Your task to perform on an android device: delete the emails in spam in the gmail app Image 0: 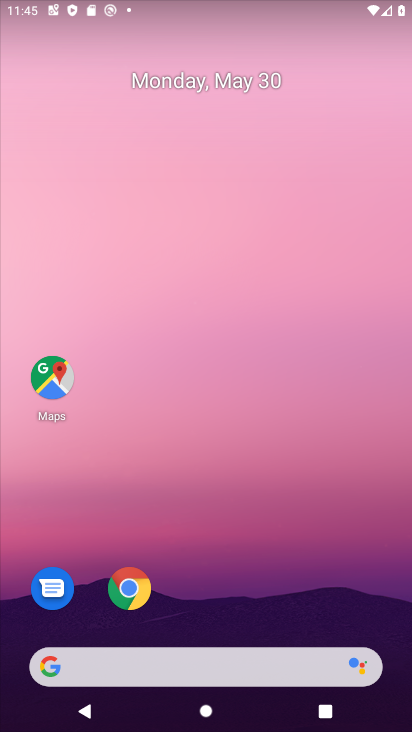
Step 0: press home button
Your task to perform on an android device: delete the emails in spam in the gmail app Image 1: 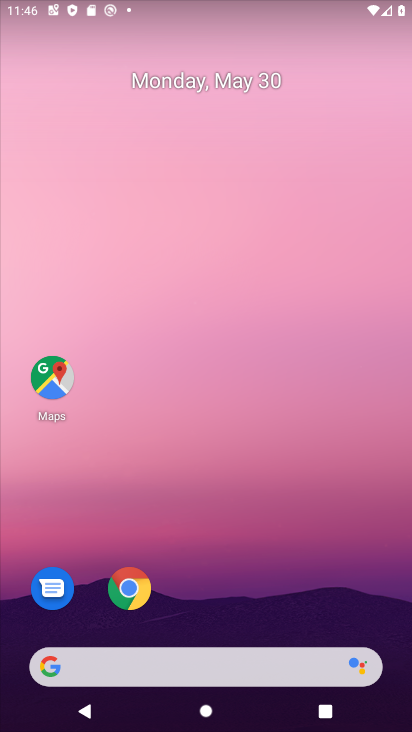
Step 1: drag from (224, 497) to (272, 43)
Your task to perform on an android device: delete the emails in spam in the gmail app Image 2: 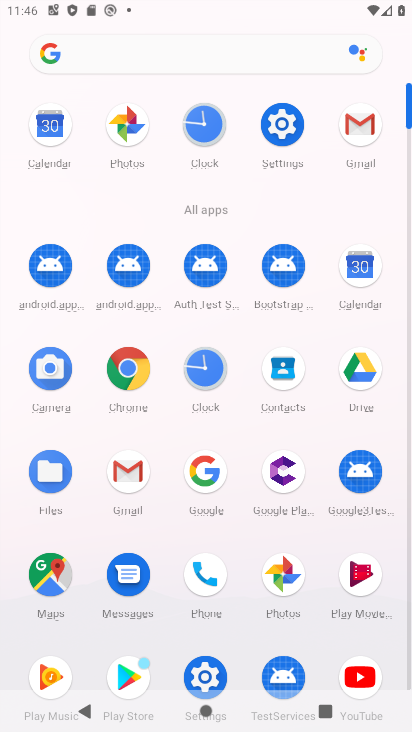
Step 2: click (125, 465)
Your task to perform on an android device: delete the emails in spam in the gmail app Image 3: 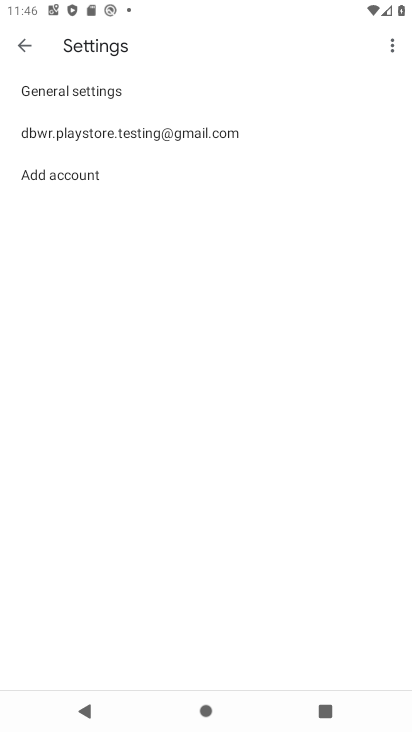
Step 3: click (17, 42)
Your task to perform on an android device: delete the emails in spam in the gmail app Image 4: 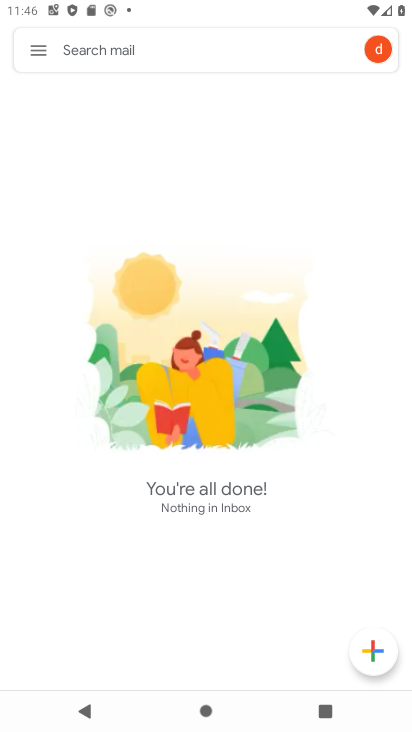
Step 4: click (32, 52)
Your task to perform on an android device: delete the emails in spam in the gmail app Image 5: 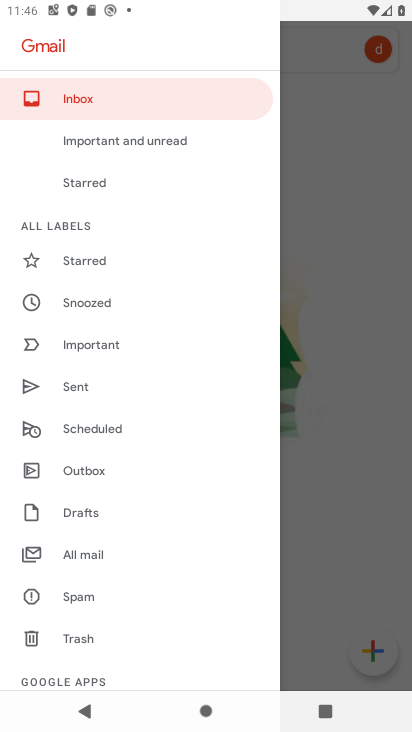
Step 5: click (106, 596)
Your task to perform on an android device: delete the emails in spam in the gmail app Image 6: 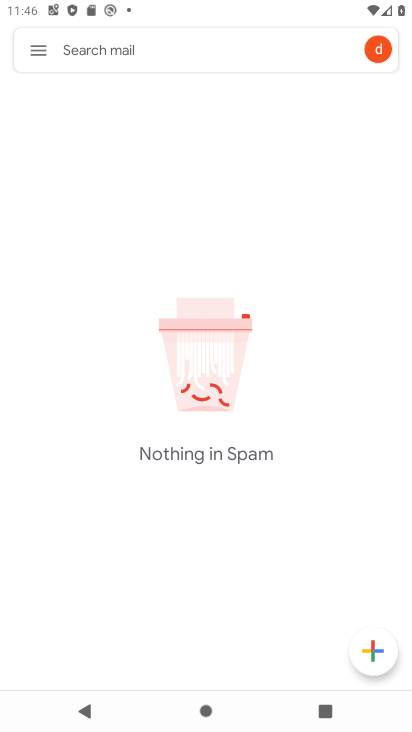
Step 6: task complete